Your task to perform on an android device: turn off data saver in the chrome app Image 0: 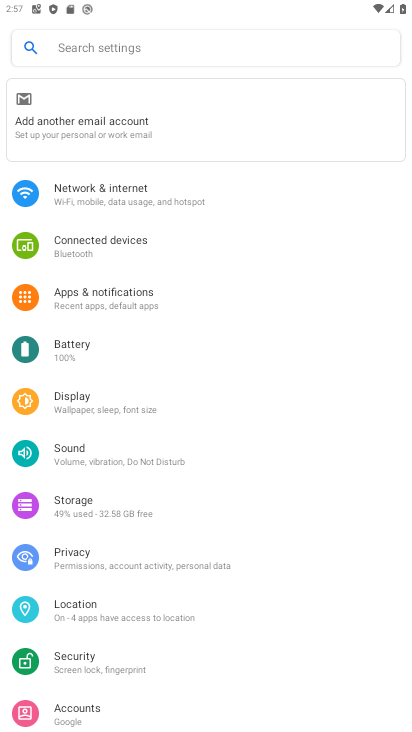
Step 0: press home button
Your task to perform on an android device: turn off data saver in the chrome app Image 1: 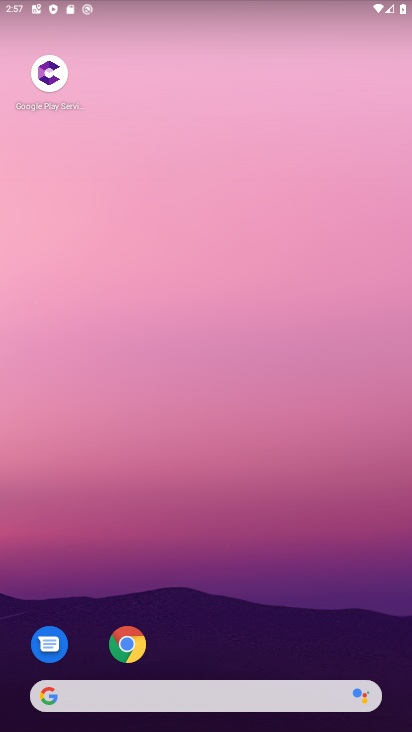
Step 1: click (131, 652)
Your task to perform on an android device: turn off data saver in the chrome app Image 2: 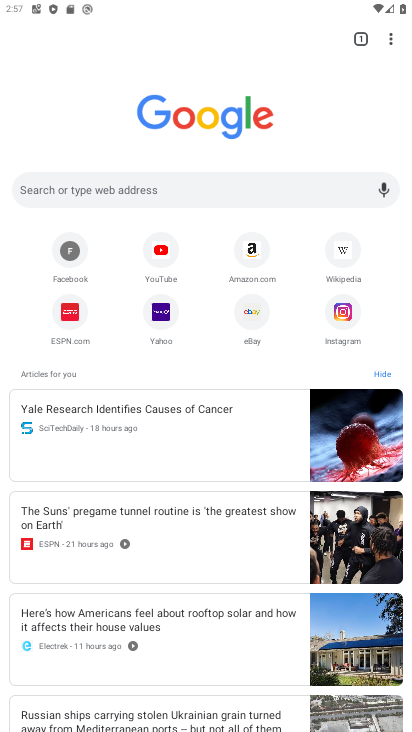
Step 2: click (389, 38)
Your task to perform on an android device: turn off data saver in the chrome app Image 3: 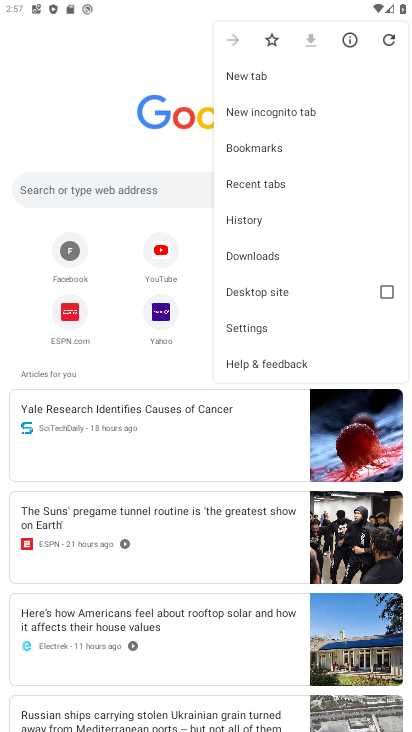
Step 3: click (253, 330)
Your task to perform on an android device: turn off data saver in the chrome app Image 4: 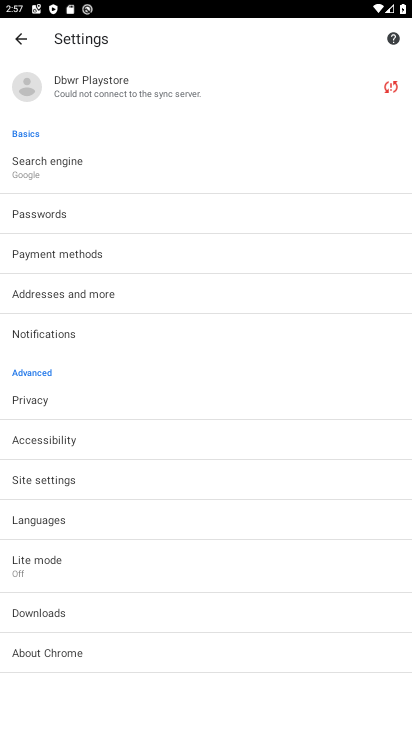
Step 4: click (64, 571)
Your task to perform on an android device: turn off data saver in the chrome app Image 5: 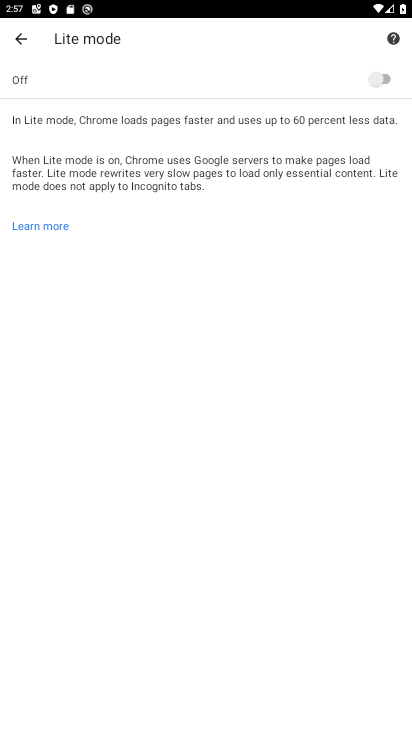
Step 5: task complete